Your task to perform on an android device: Show me the alarms in the clock app Image 0: 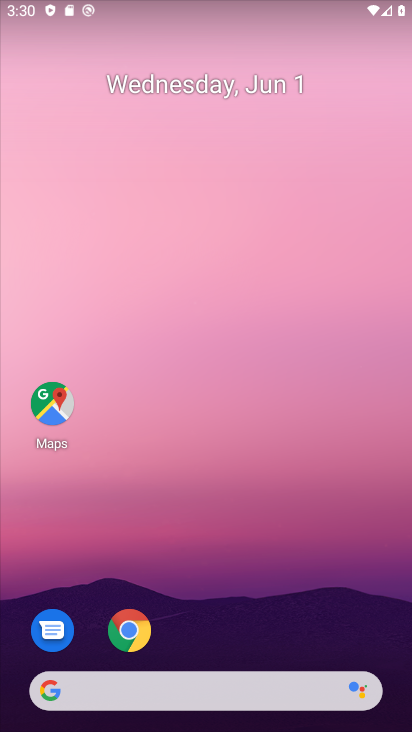
Step 0: drag from (180, 661) to (236, 205)
Your task to perform on an android device: Show me the alarms in the clock app Image 1: 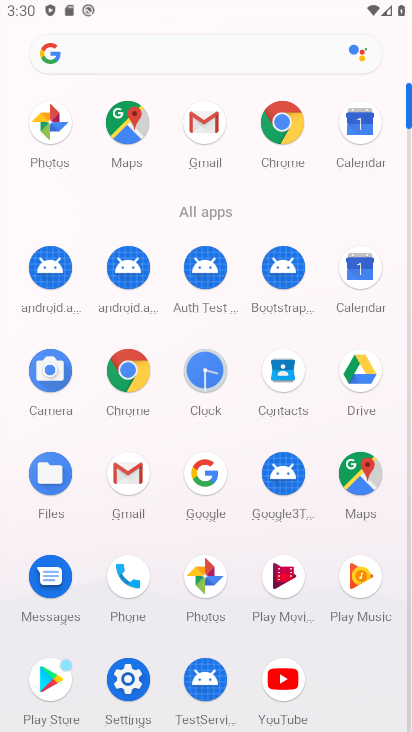
Step 1: click (206, 375)
Your task to perform on an android device: Show me the alarms in the clock app Image 2: 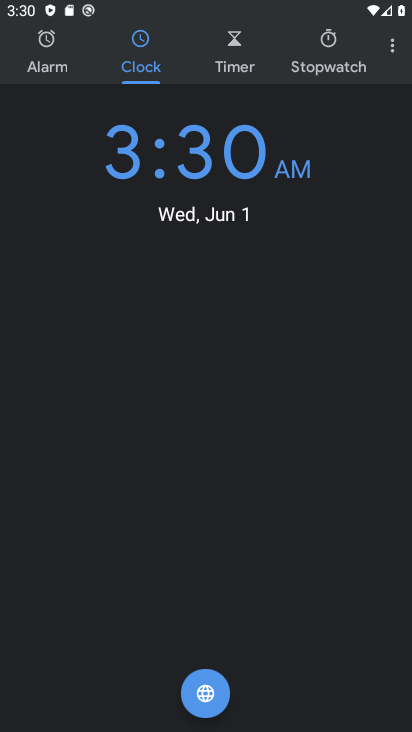
Step 2: click (53, 38)
Your task to perform on an android device: Show me the alarms in the clock app Image 3: 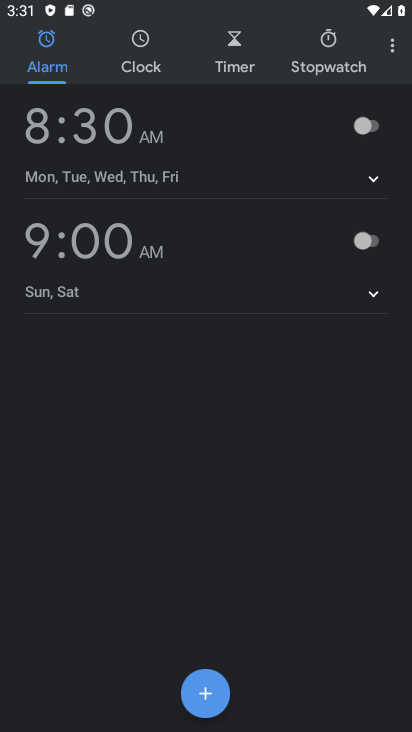
Step 3: task complete